Your task to perform on an android device: check google app version Image 0: 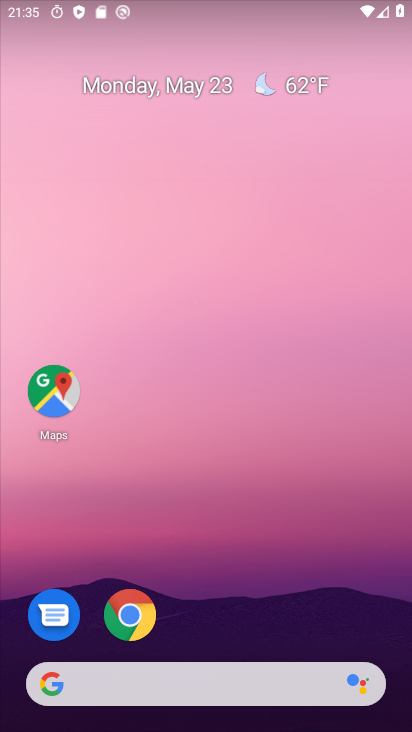
Step 0: drag from (234, 607) to (259, 157)
Your task to perform on an android device: check google app version Image 1: 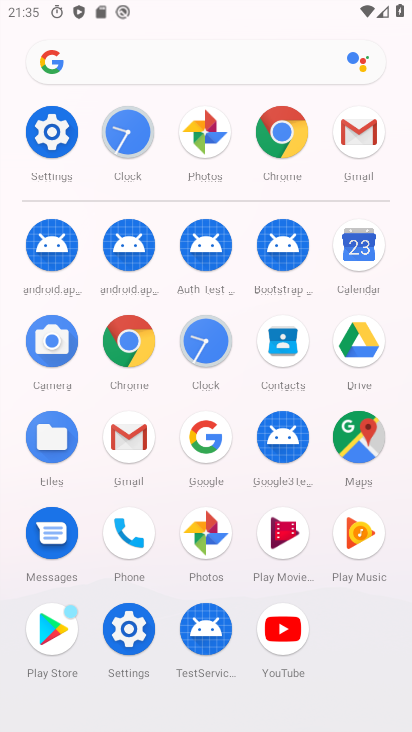
Step 1: click (212, 435)
Your task to perform on an android device: check google app version Image 2: 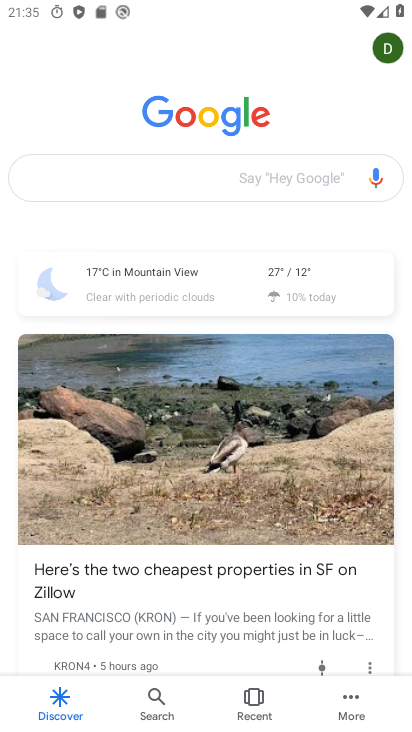
Step 2: click (354, 703)
Your task to perform on an android device: check google app version Image 3: 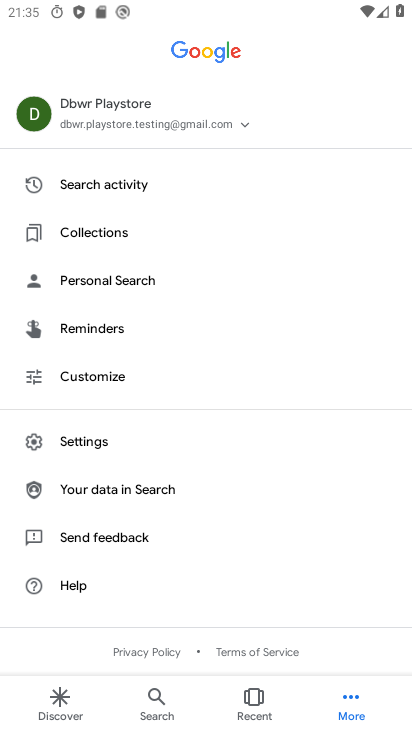
Step 3: click (155, 436)
Your task to perform on an android device: check google app version Image 4: 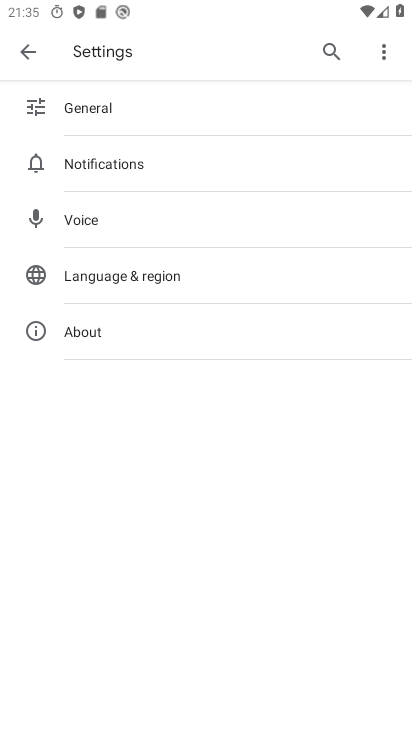
Step 4: click (105, 328)
Your task to perform on an android device: check google app version Image 5: 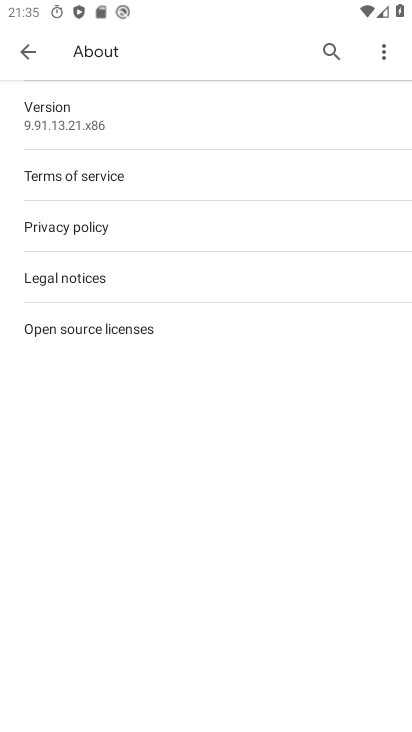
Step 5: click (86, 98)
Your task to perform on an android device: check google app version Image 6: 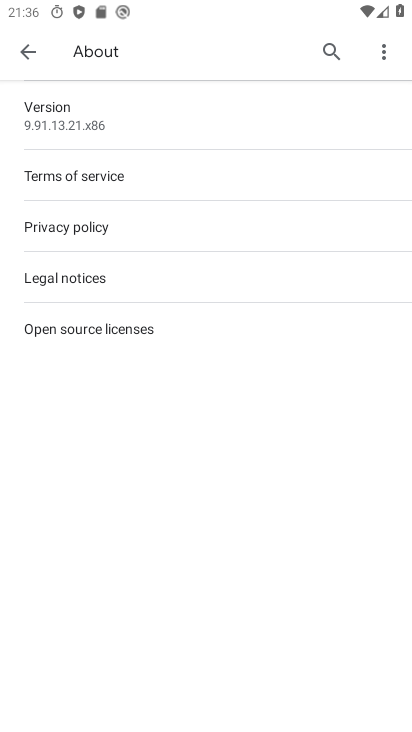
Step 6: task complete